Your task to perform on an android device: check battery use Image 0: 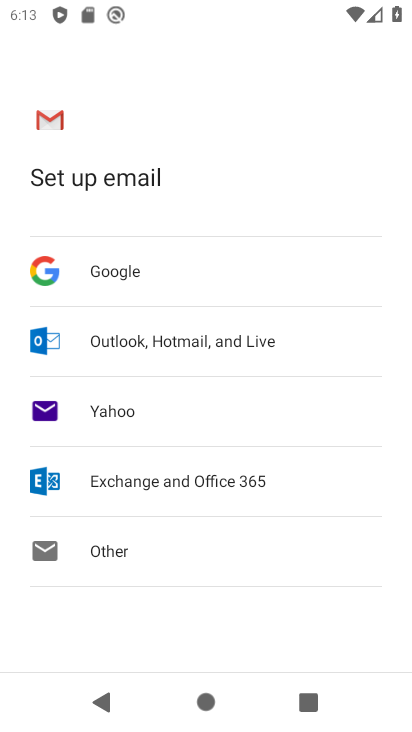
Step 0: press home button
Your task to perform on an android device: check battery use Image 1: 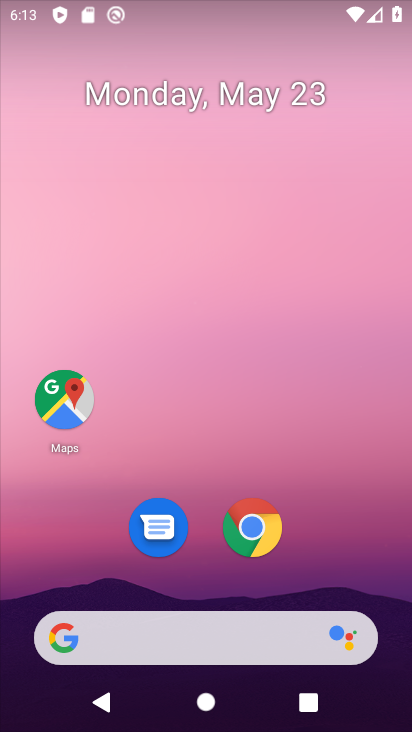
Step 1: drag from (302, 563) to (406, 45)
Your task to perform on an android device: check battery use Image 2: 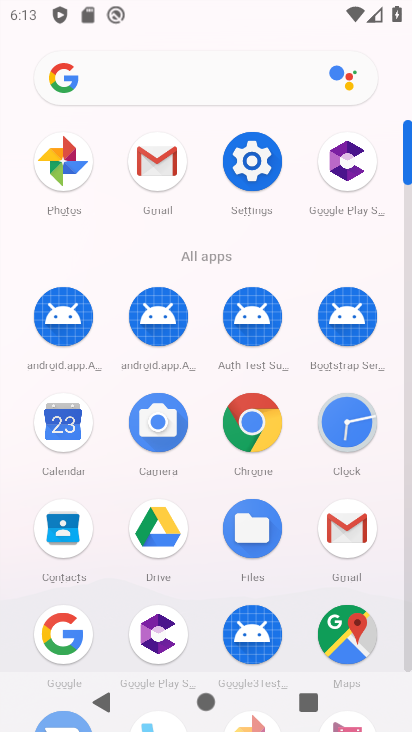
Step 2: drag from (311, 340) to (318, 114)
Your task to perform on an android device: check battery use Image 3: 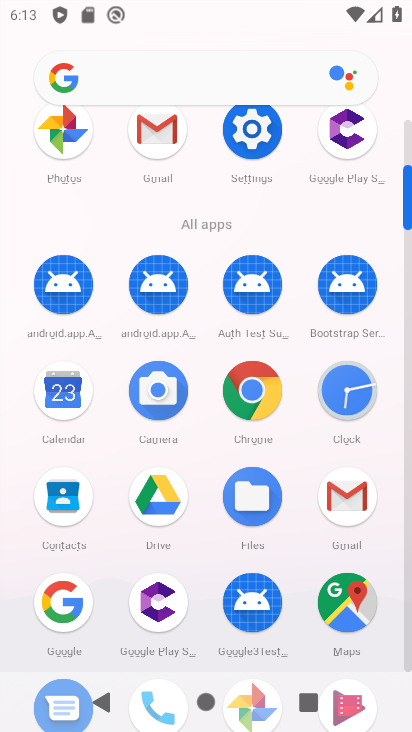
Step 3: click (261, 144)
Your task to perform on an android device: check battery use Image 4: 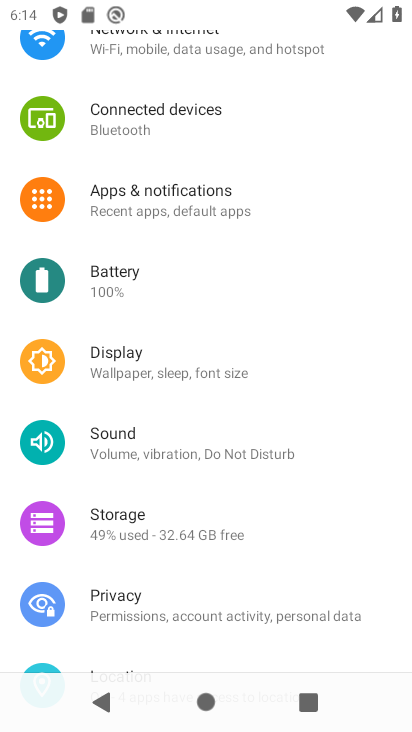
Step 4: click (110, 291)
Your task to perform on an android device: check battery use Image 5: 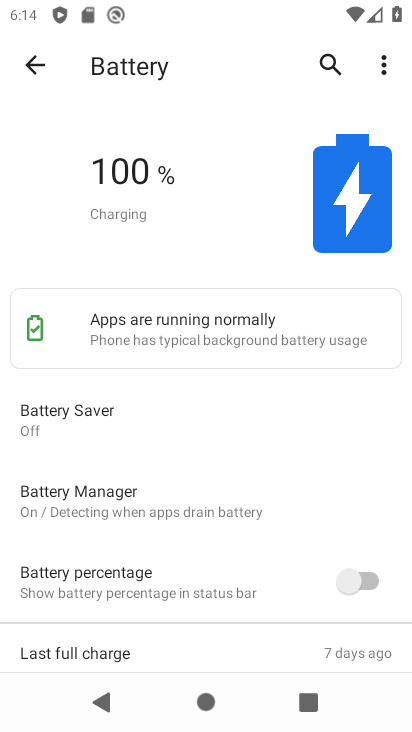
Step 5: task complete